Your task to perform on an android device: turn on sleep mode Image 0: 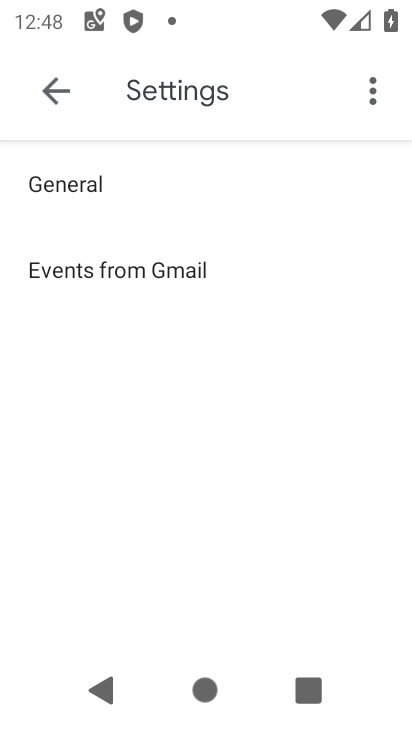
Step 0: press home button
Your task to perform on an android device: turn on sleep mode Image 1: 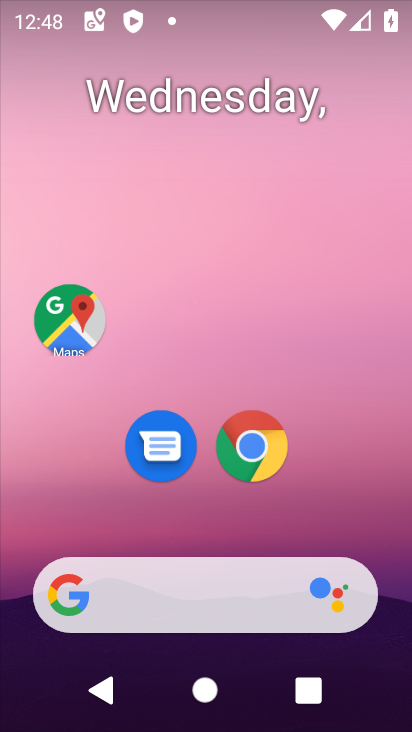
Step 1: drag from (204, 458) to (226, 94)
Your task to perform on an android device: turn on sleep mode Image 2: 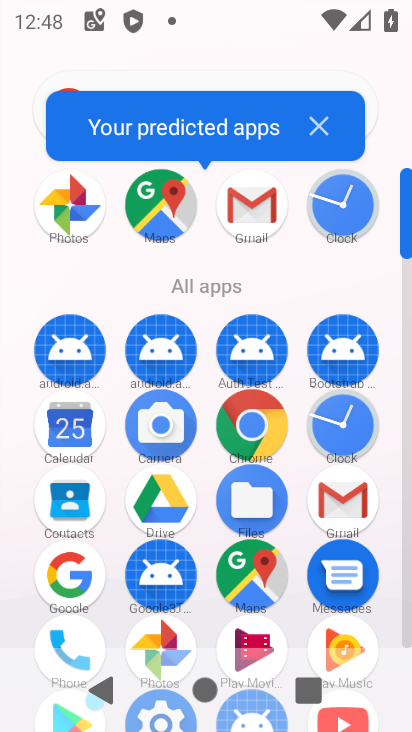
Step 2: drag from (203, 543) to (199, 144)
Your task to perform on an android device: turn on sleep mode Image 3: 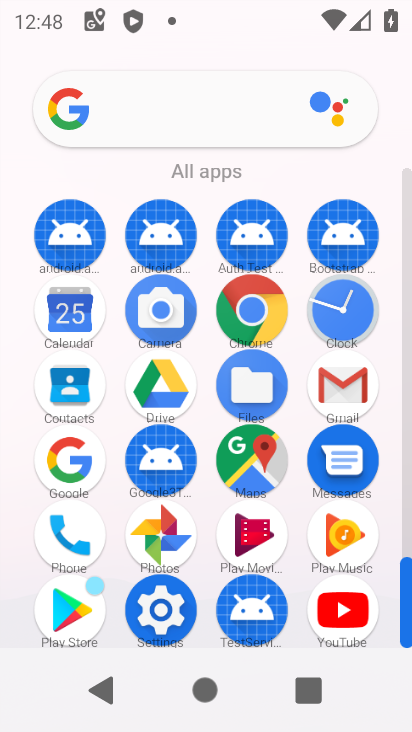
Step 3: click (156, 615)
Your task to perform on an android device: turn on sleep mode Image 4: 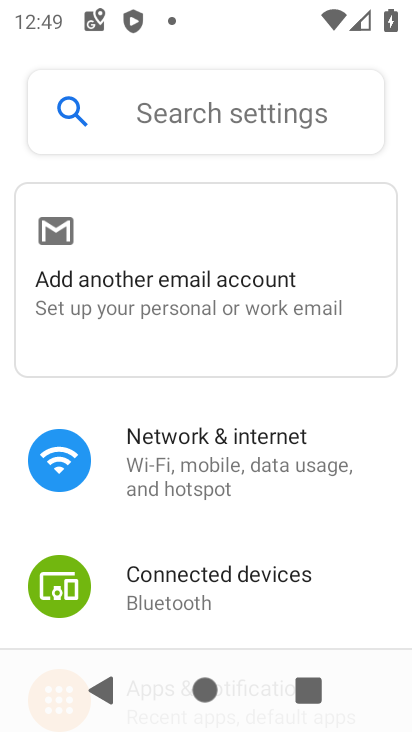
Step 4: task complete